Your task to perform on an android device: Clear the shopping cart on walmart.com. Add "lenovo thinkpad" to the cart on walmart.com Image 0: 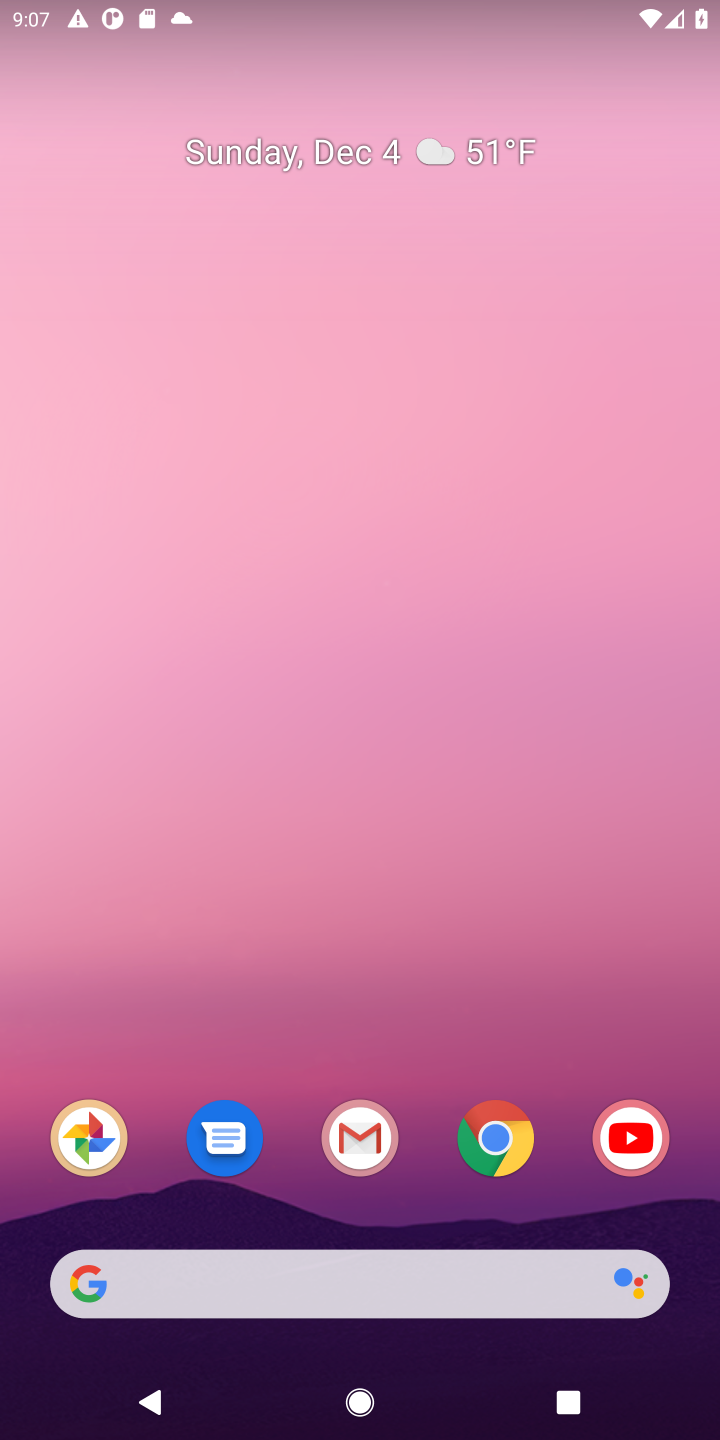
Step 0: click (497, 1131)
Your task to perform on an android device: Clear the shopping cart on walmart.com. Add "lenovo thinkpad" to the cart on walmart.com Image 1: 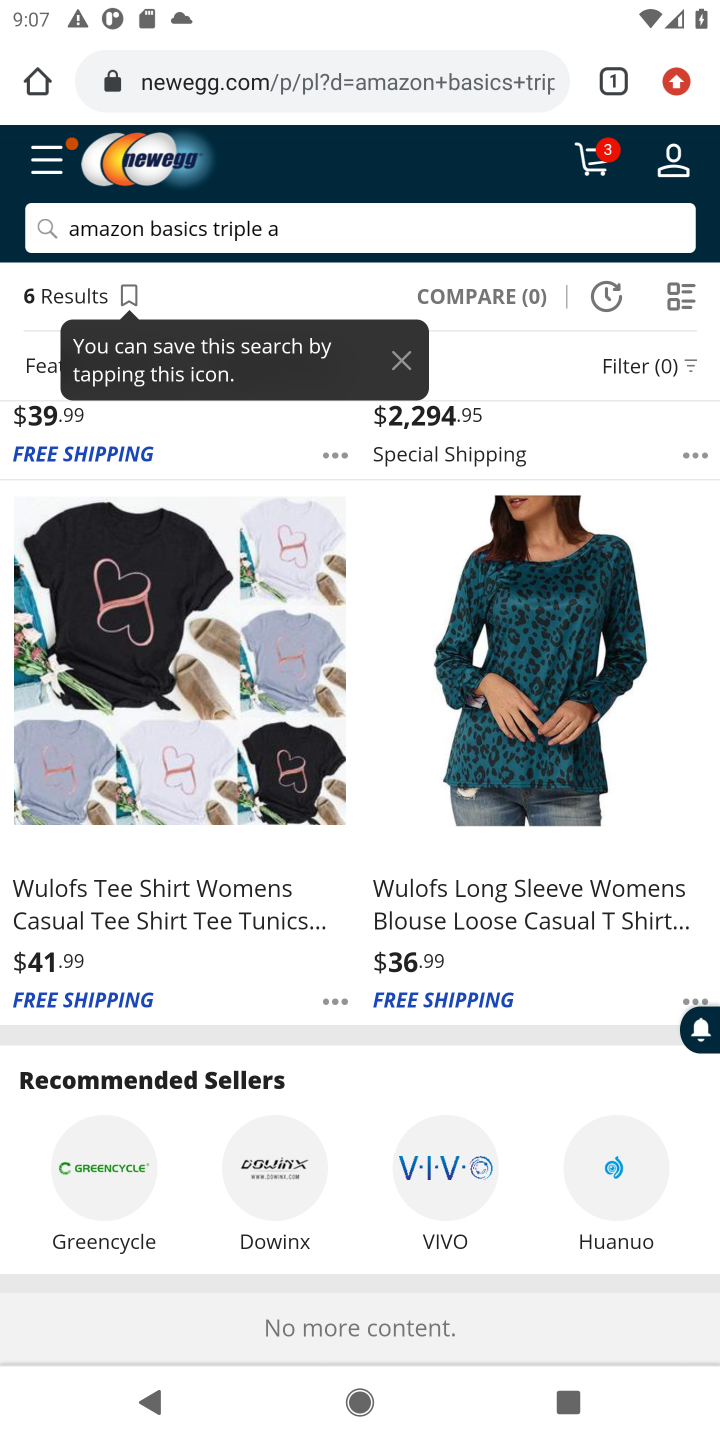
Step 1: click (329, 83)
Your task to perform on an android device: Clear the shopping cart on walmart.com. Add "lenovo thinkpad" to the cart on walmart.com Image 2: 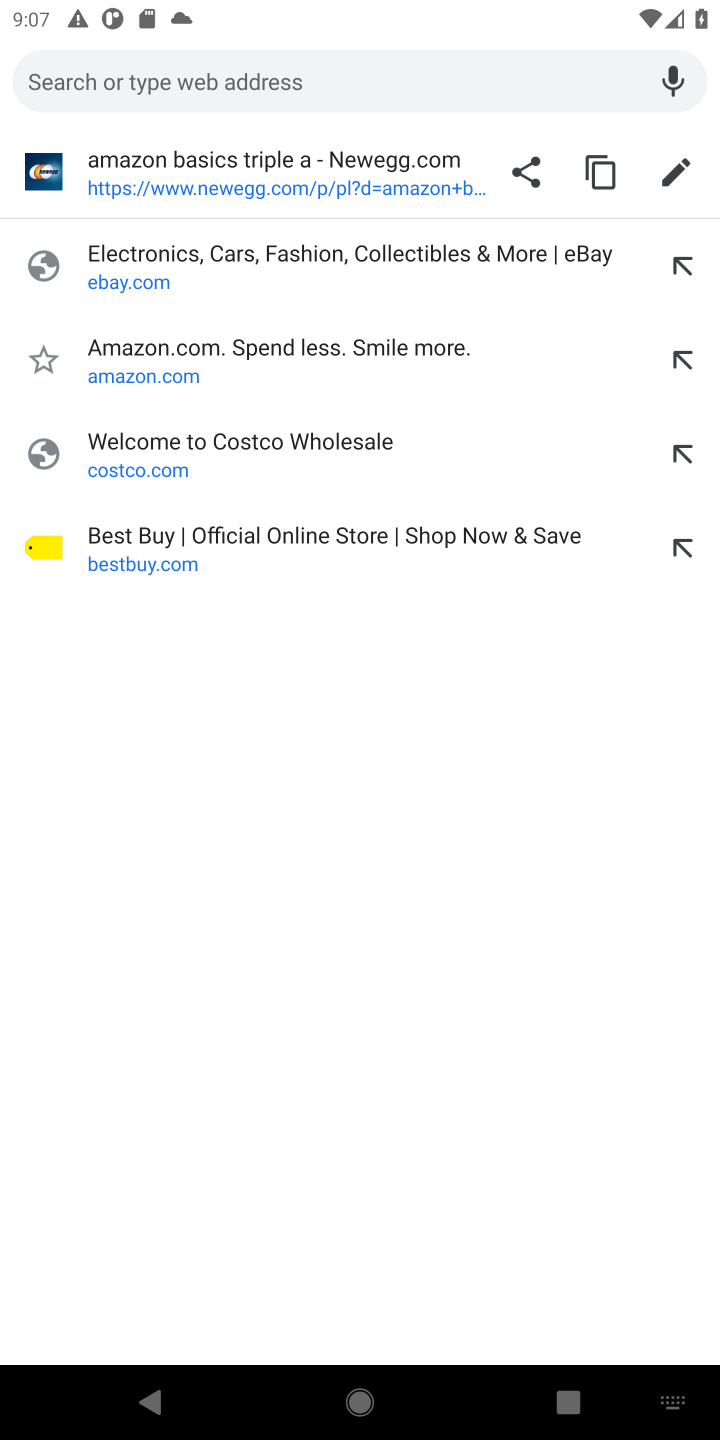
Step 2: type "walmart.com"
Your task to perform on an android device: Clear the shopping cart on walmart.com. Add "lenovo thinkpad" to the cart on walmart.com Image 3: 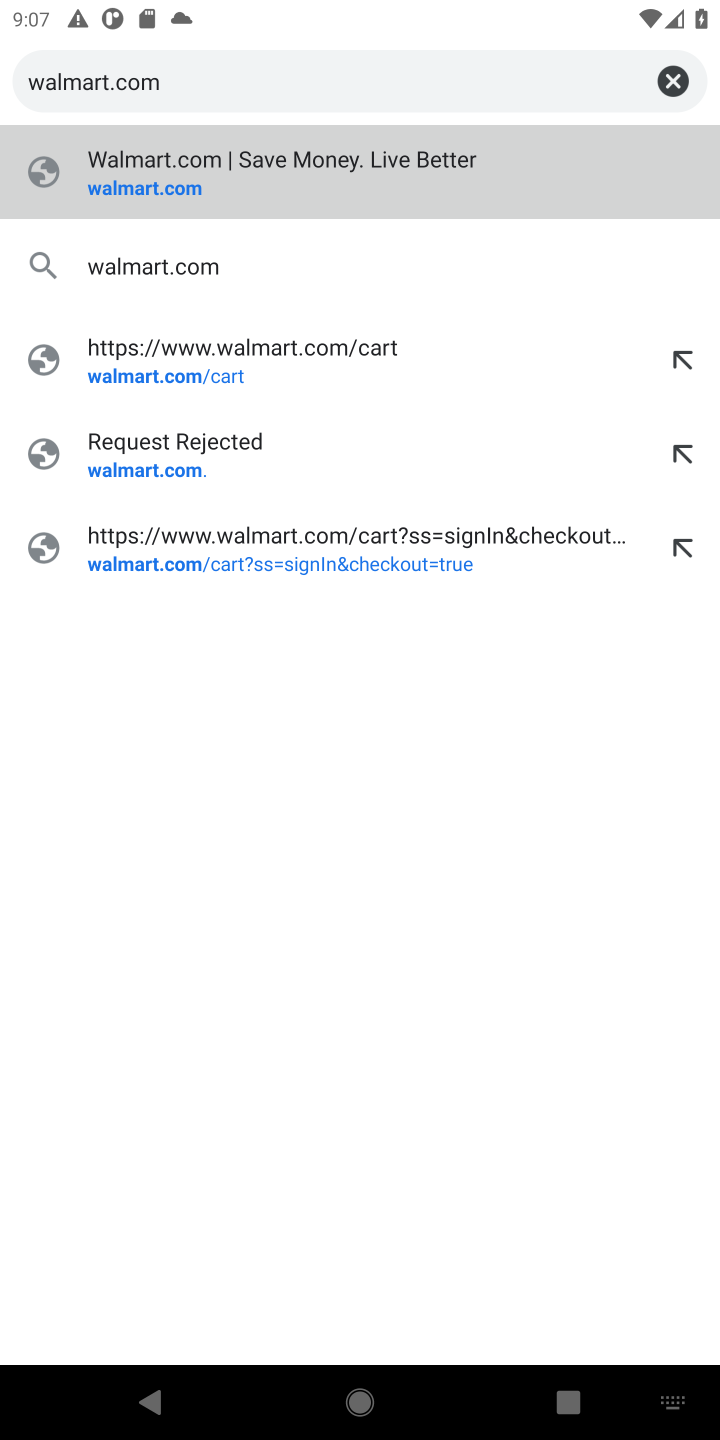
Step 3: press enter
Your task to perform on an android device: Clear the shopping cart on walmart.com. Add "lenovo thinkpad" to the cart on walmart.com Image 4: 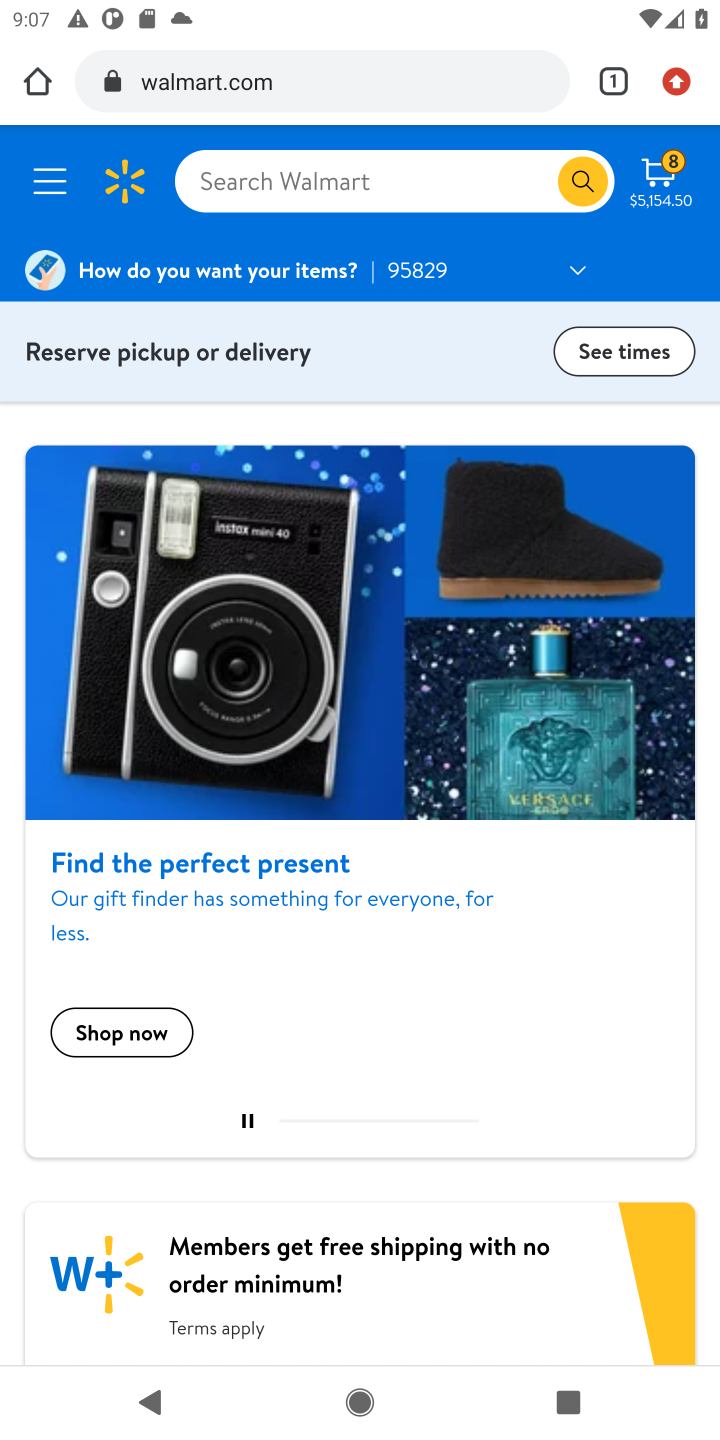
Step 4: click (655, 178)
Your task to perform on an android device: Clear the shopping cart on walmart.com. Add "lenovo thinkpad" to the cart on walmart.com Image 5: 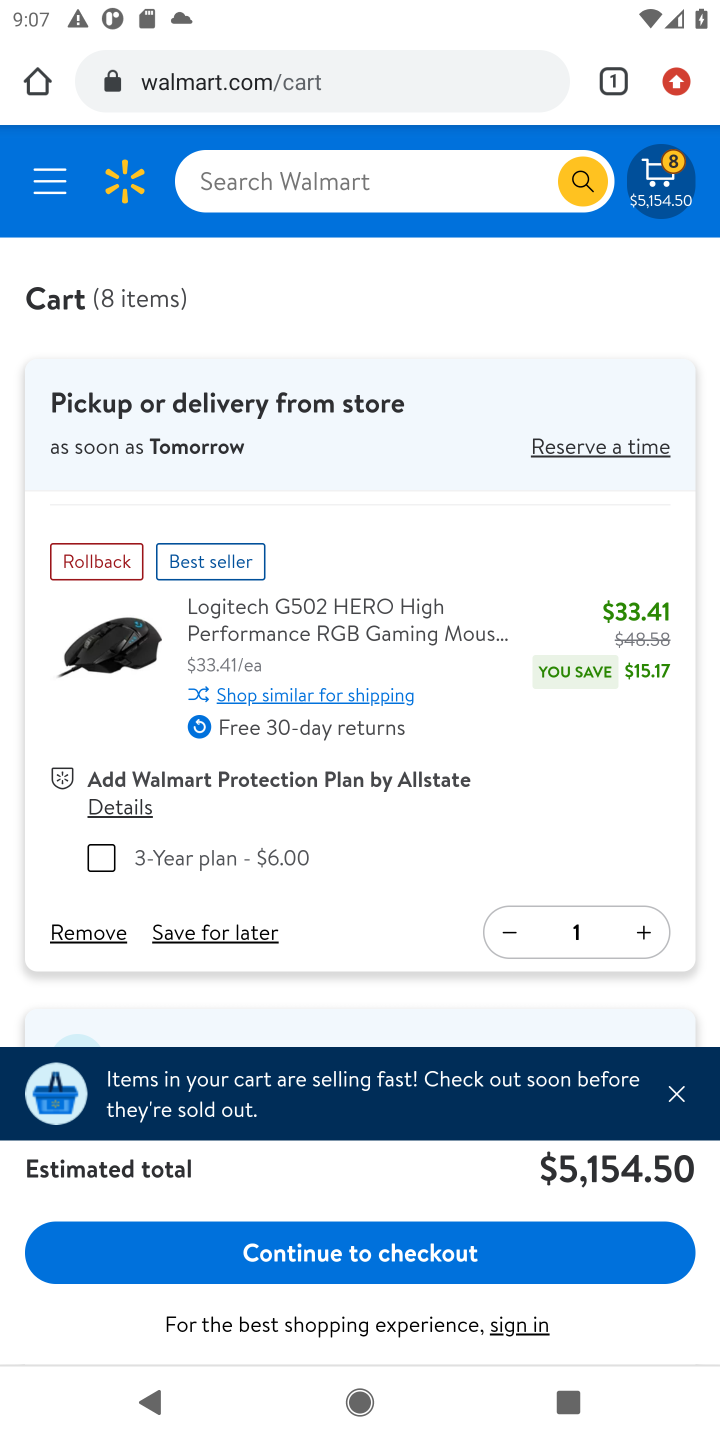
Step 5: drag from (412, 789) to (466, 482)
Your task to perform on an android device: Clear the shopping cart on walmart.com. Add "lenovo thinkpad" to the cart on walmart.com Image 6: 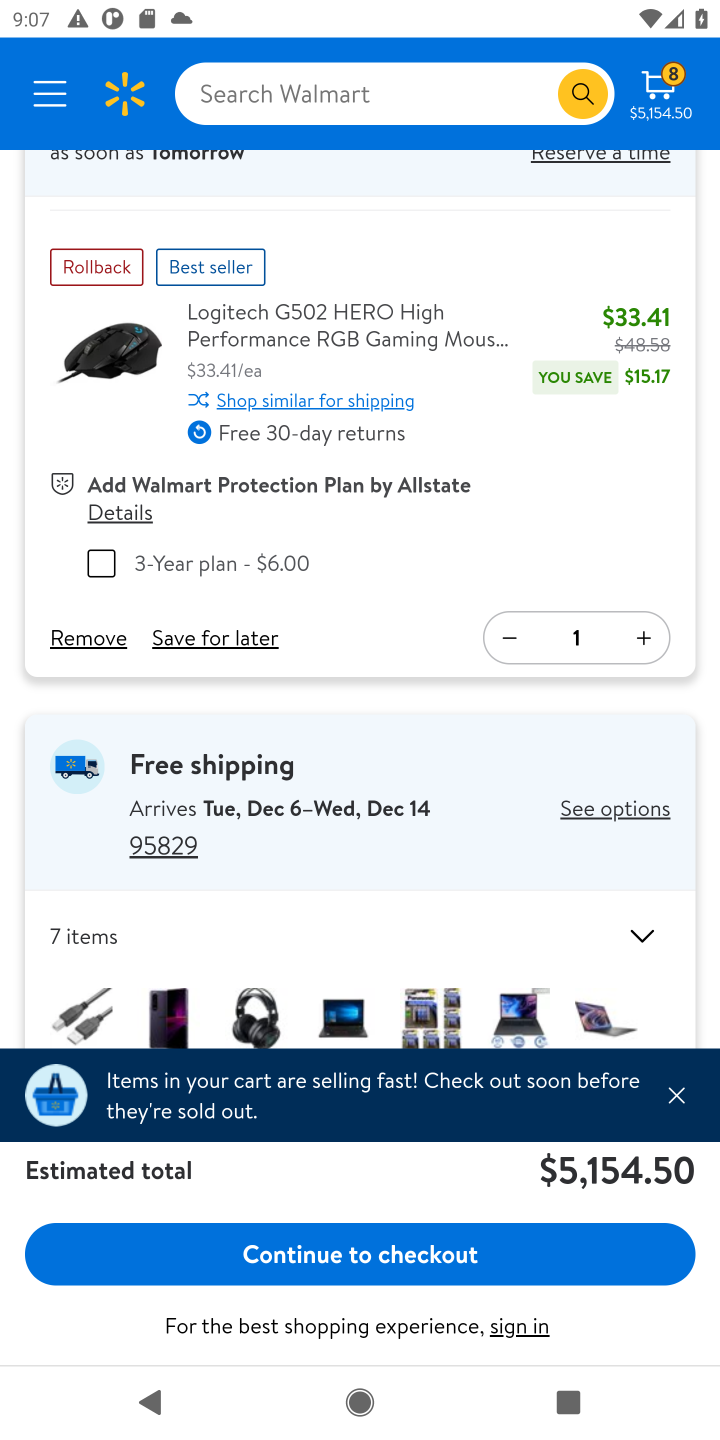
Step 6: click (105, 629)
Your task to perform on an android device: Clear the shopping cart on walmart.com. Add "lenovo thinkpad" to the cart on walmart.com Image 7: 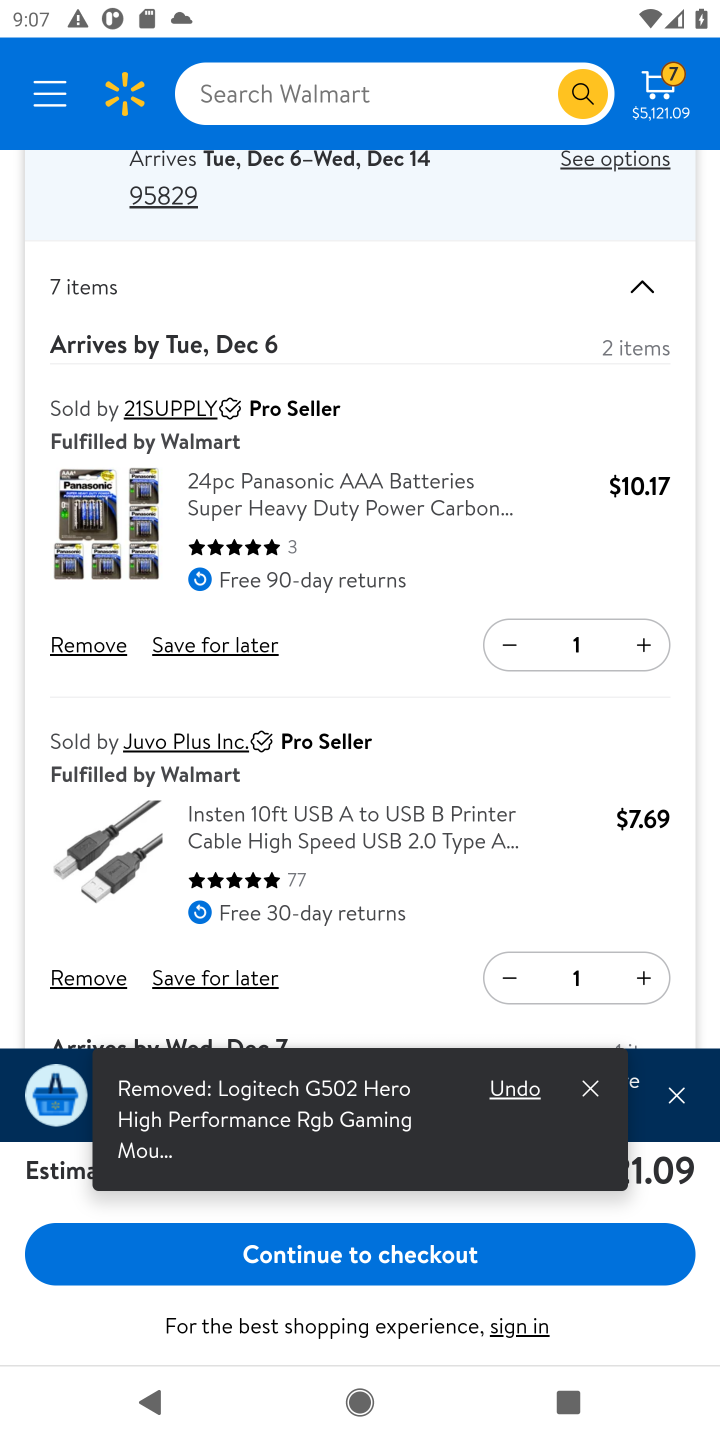
Step 7: click (80, 975)
Your task to perform on an android device: Clear the shopping cart on walmart.com. Add "lenovo thinkpad" to the cart on walmart.com Image 8: 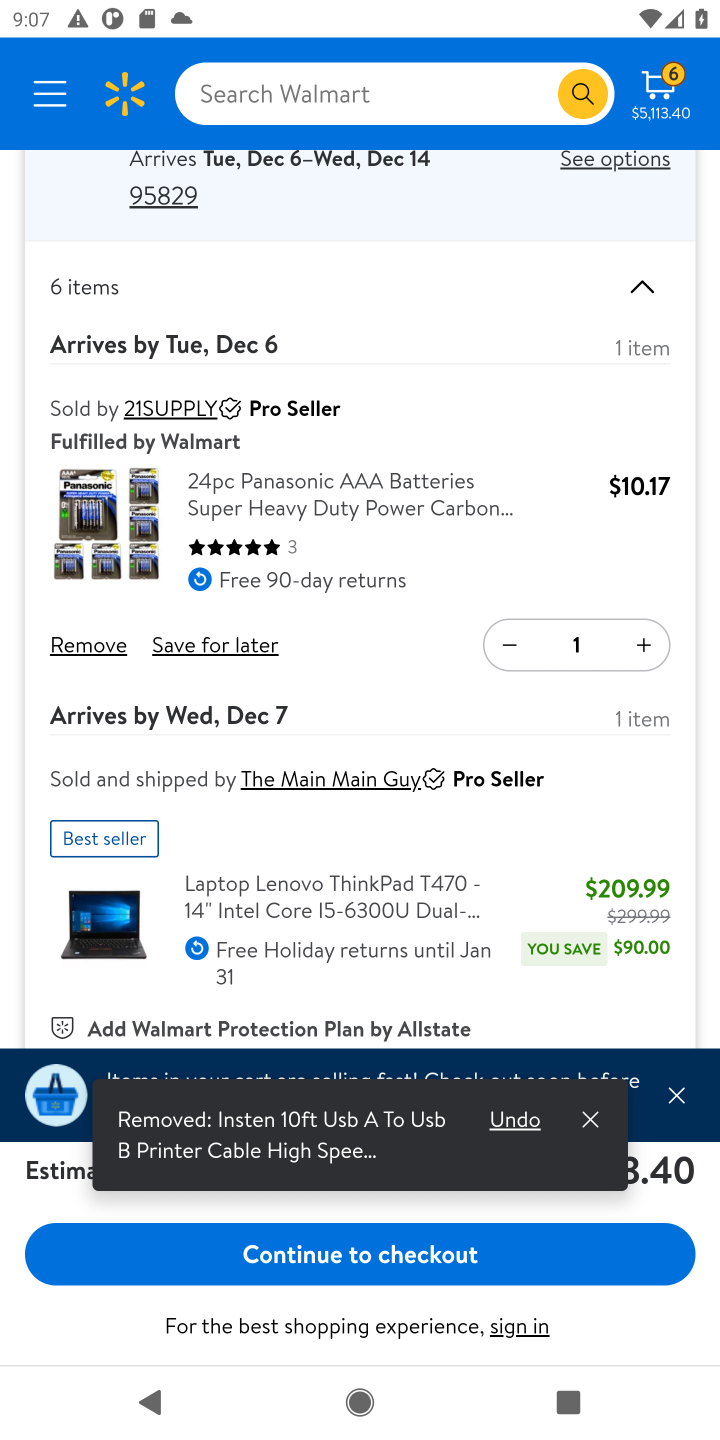
Step 8: click (102, 643)
Your task to perform on an android device: Clear the shopping cart on walmart.com. Add "lenovo thinkpad" to the cart on walmart.com Image 9: 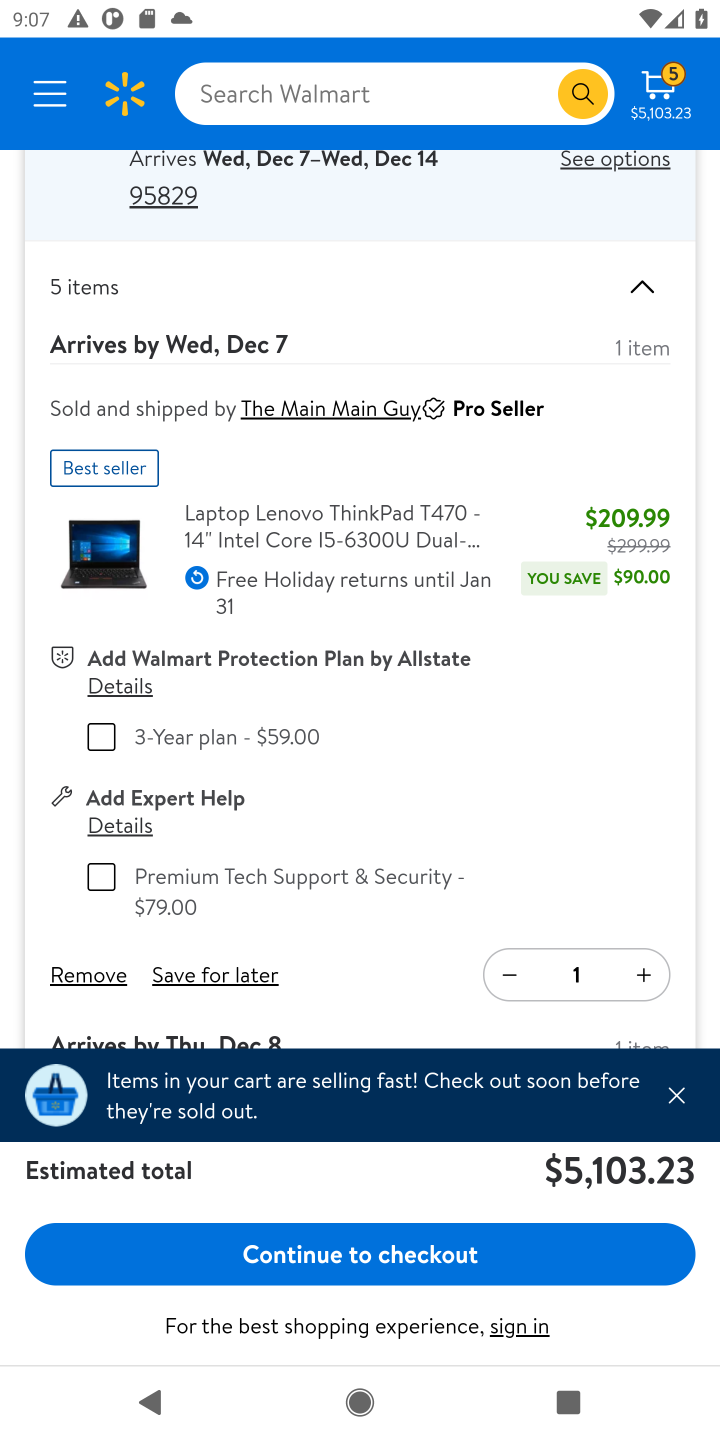
Step 9: drag from (619, 722) to (663, 199)
Your task to perform on an android device: Clear the shopping cart on walmart.com. Add "lenovo thinkpad" to the cart on walmart.com Image 10: 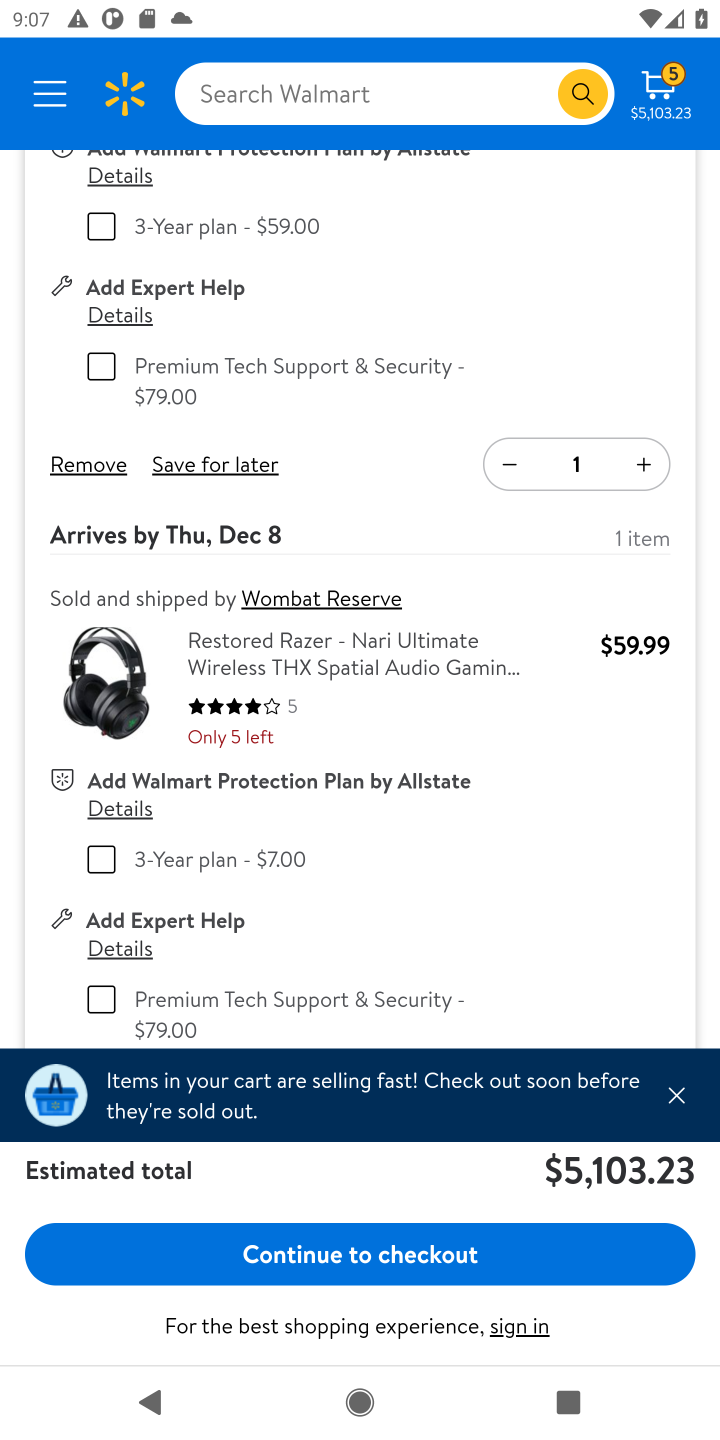
Step 10: click (106, 457)
Your task to perform on an android device: Clear the shopping cart on walmart.com. Add "lenovo thinkpad" to the cart on walmart.com Image 11: 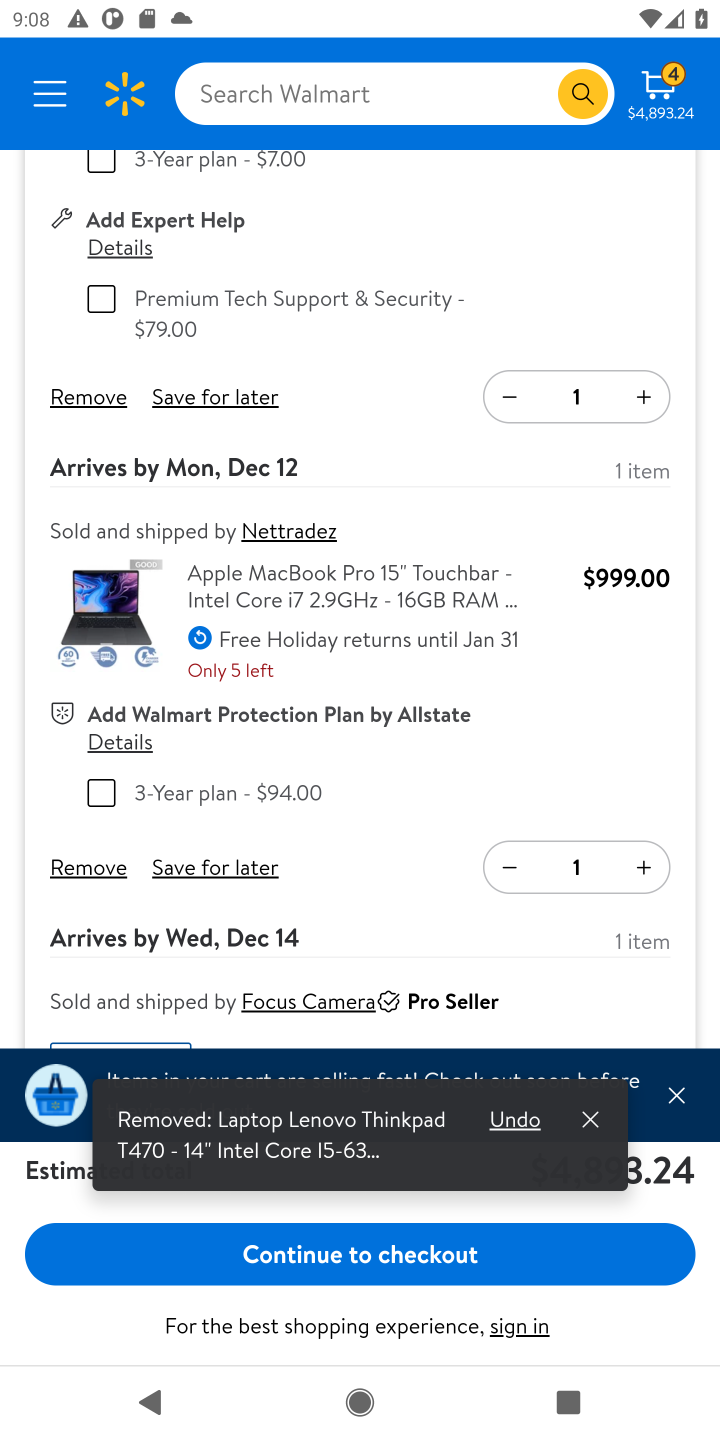
Step 11: click (89, 392)
Your task to perform on an android device: Clear the shopping cart on walmart.com. Add "lenovo thinkpad" to the cart on walmart.com Image 12: 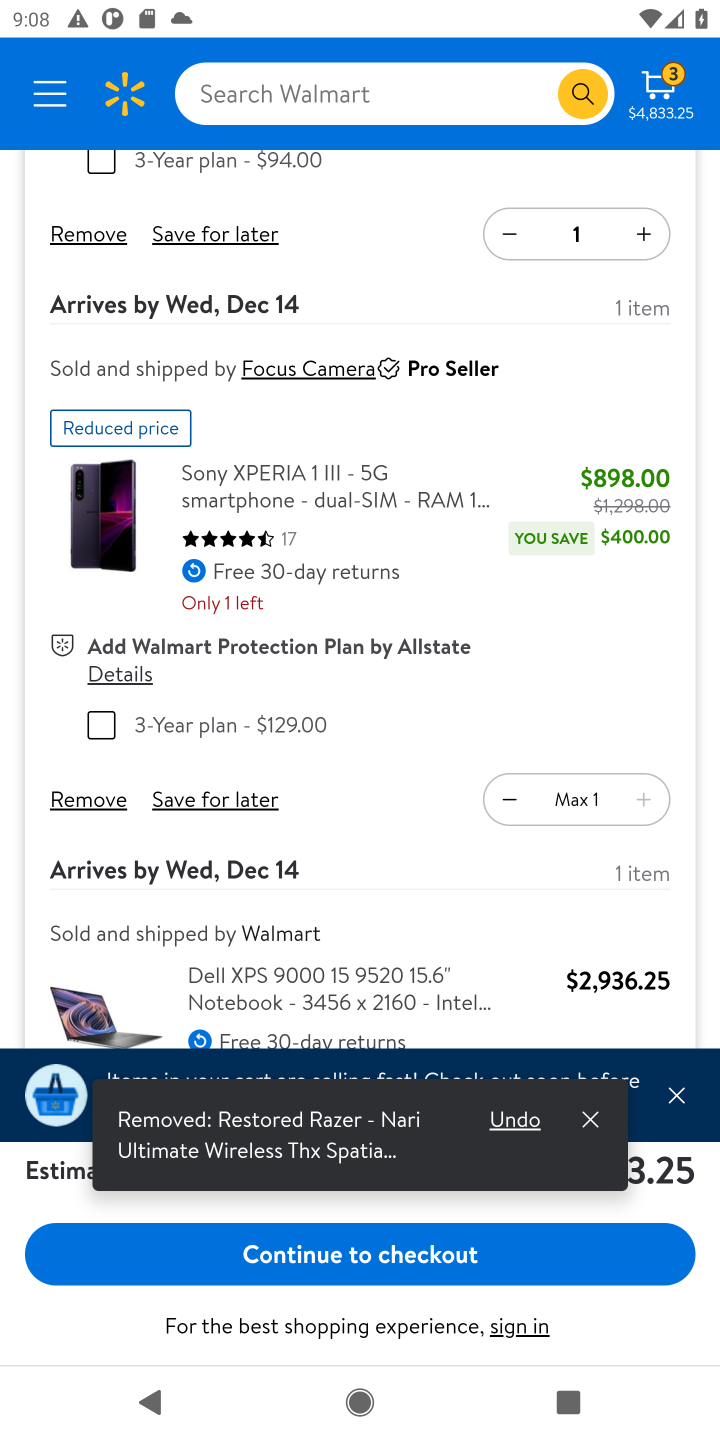
Step 12: click (93, 231)
Your task to perform on an android device: Clear the shopping cart on walmart.com. Add "lenovo thinkpad" to the cart on walmart.com Image 13: 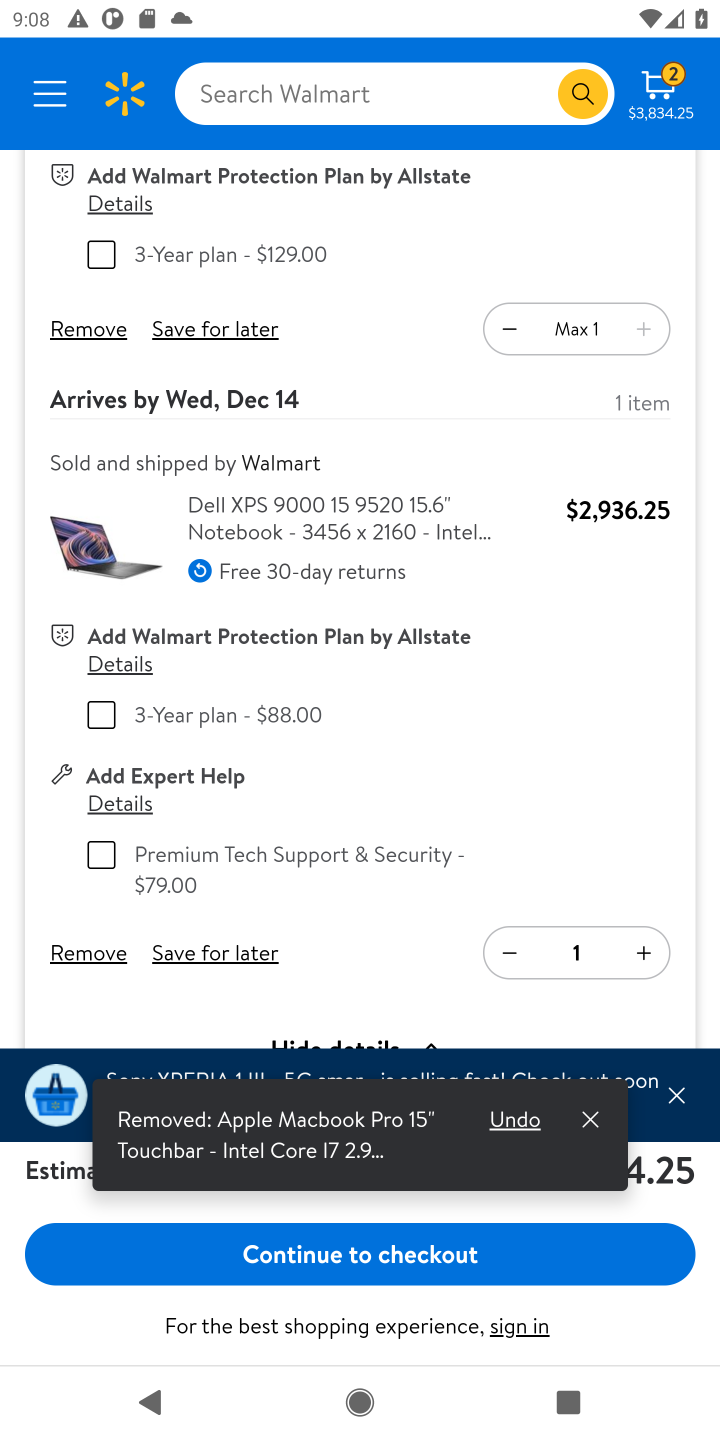
Step 13: click (91, 329)
Your task to perform on an android device: Clear the shopping cart on walmart.com. Add "lenovo thinkpad" to the cart on walmart.com Image 14: 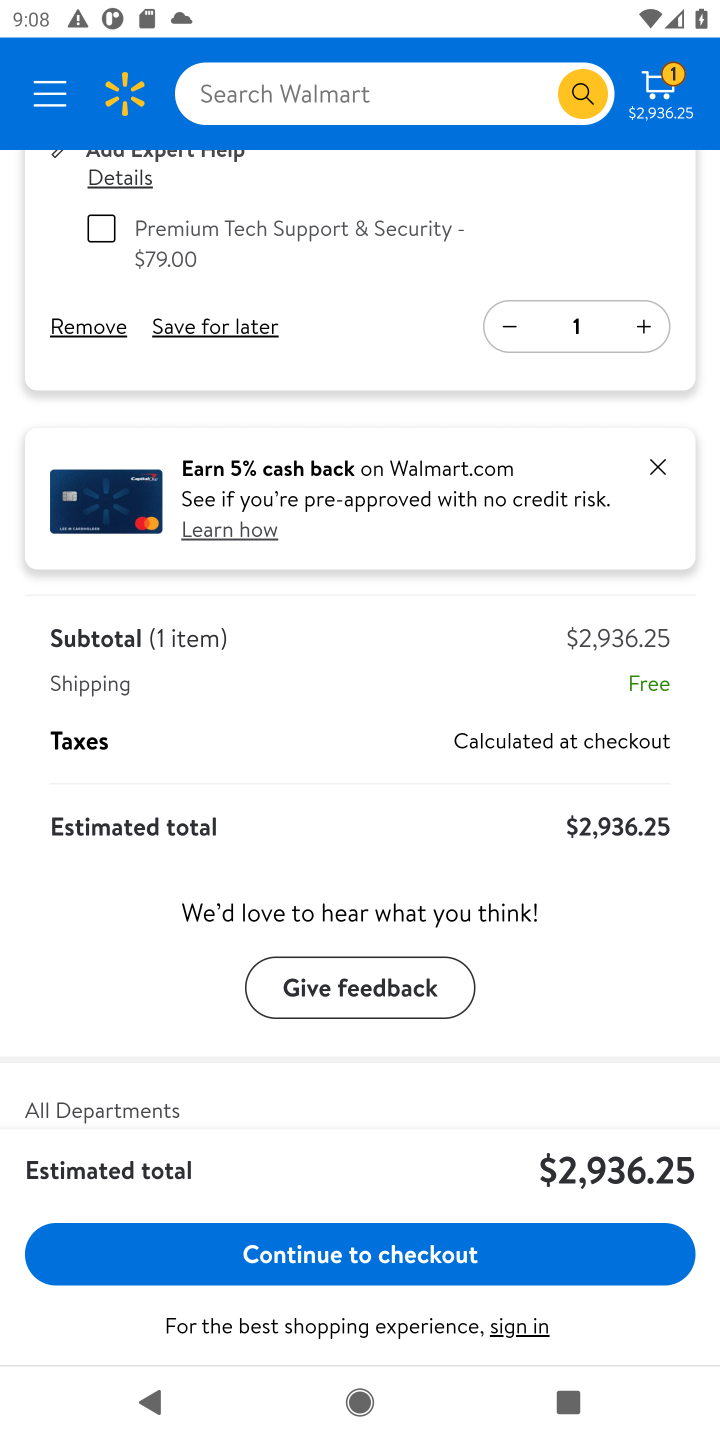
Step 14: click (68, 325)
Your task to perform on an android device: Clear the shopping cart on walmart.com. Add "lenovo thinkpad" to the cart on walmart.com Image 15: 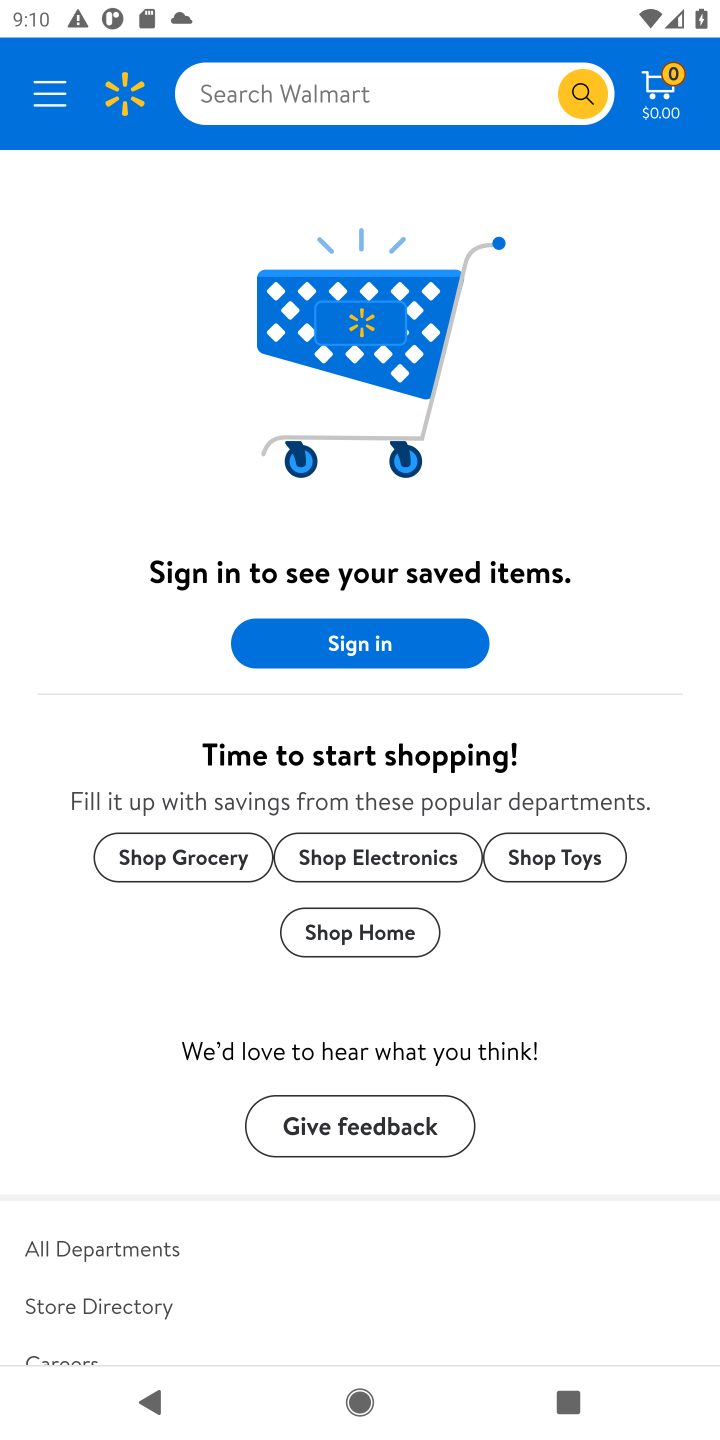
Step 15: click (380, 87)
Your task to perform on an android device: Clear the shopping cart on walmart.com. Add "lenovo thinkpad" to the cart on walmart.com Image 16: 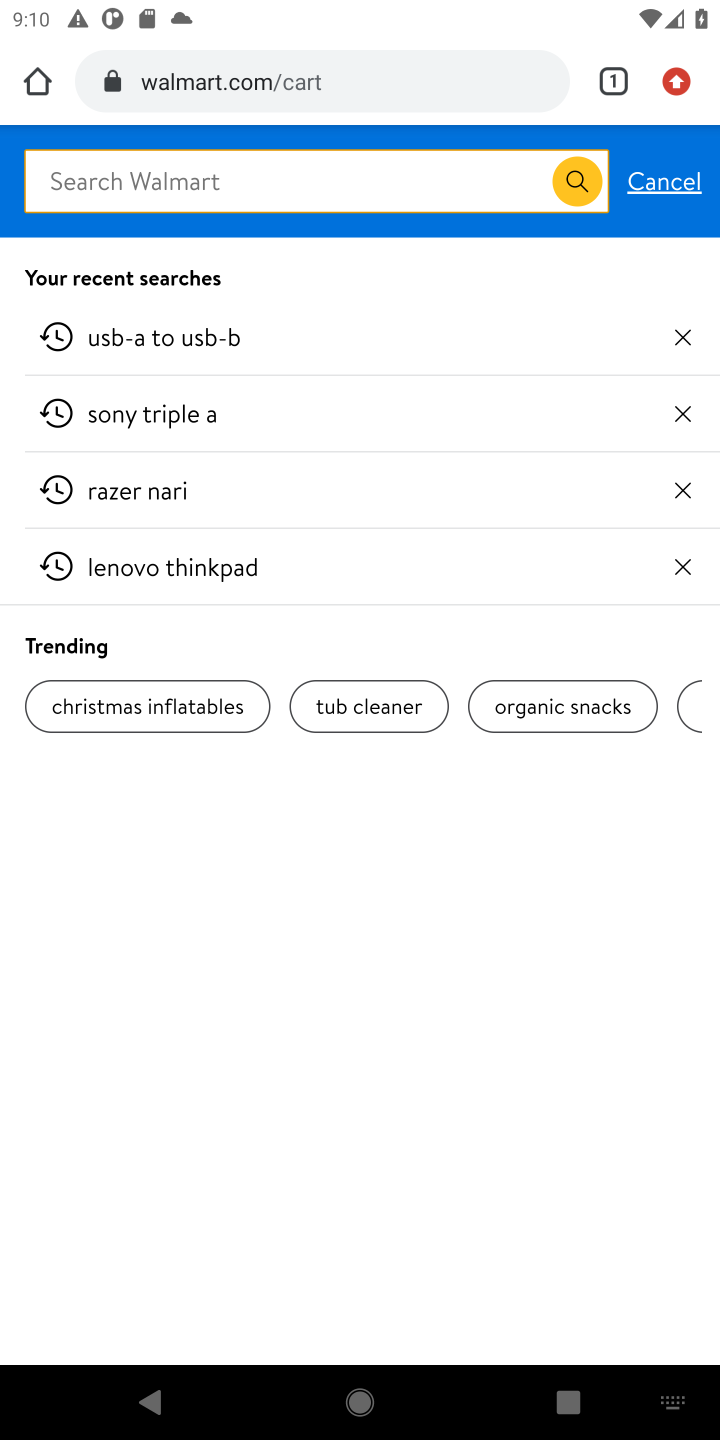
Step 16: type "lenovo thinkpad"
Your task to perform on an android device: Clear the shopping cart on walmart.com. Add "lenovo thinkpad" to the cart on walmart.com Image 17: 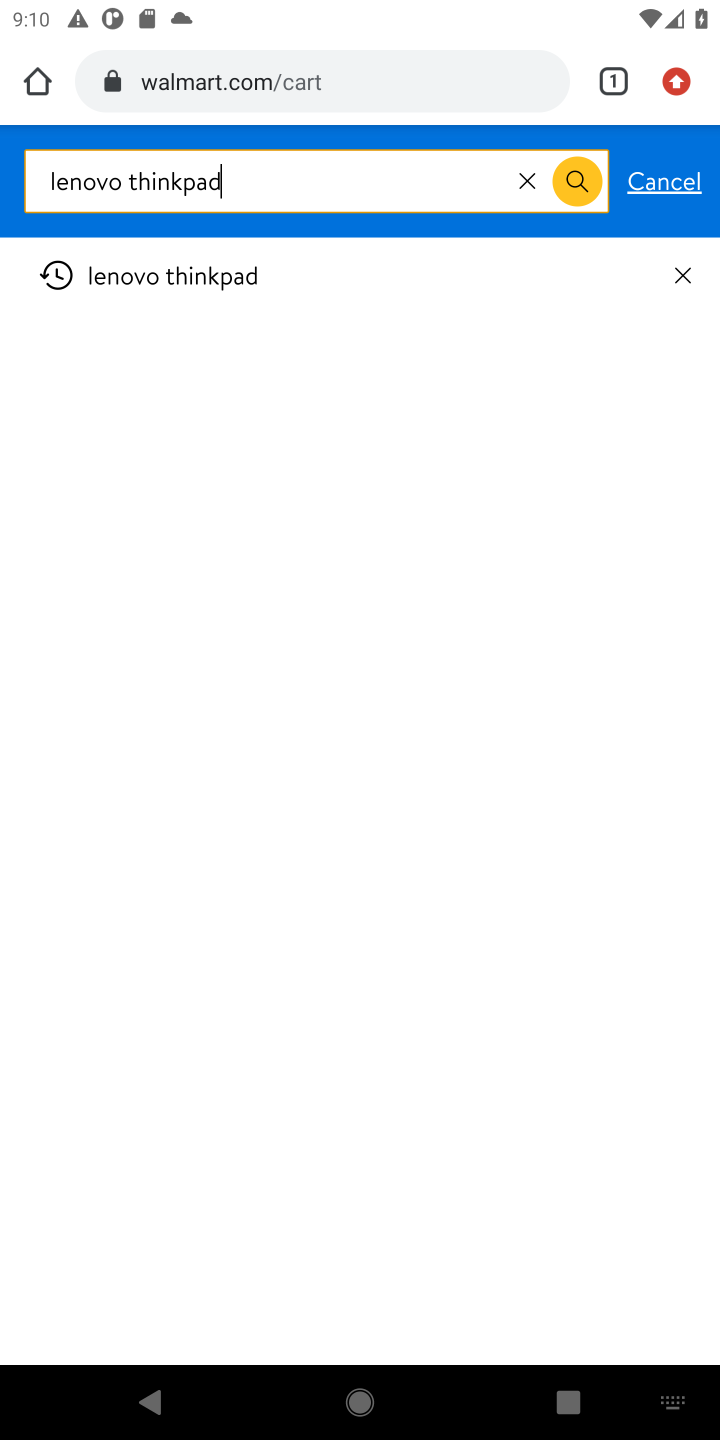
Step 17: press enter
Your task to perform on an android device: Clear the shopping cart on walmart.com. Add "lenovo thinkpad" to the cart on walmart.com Image 18: 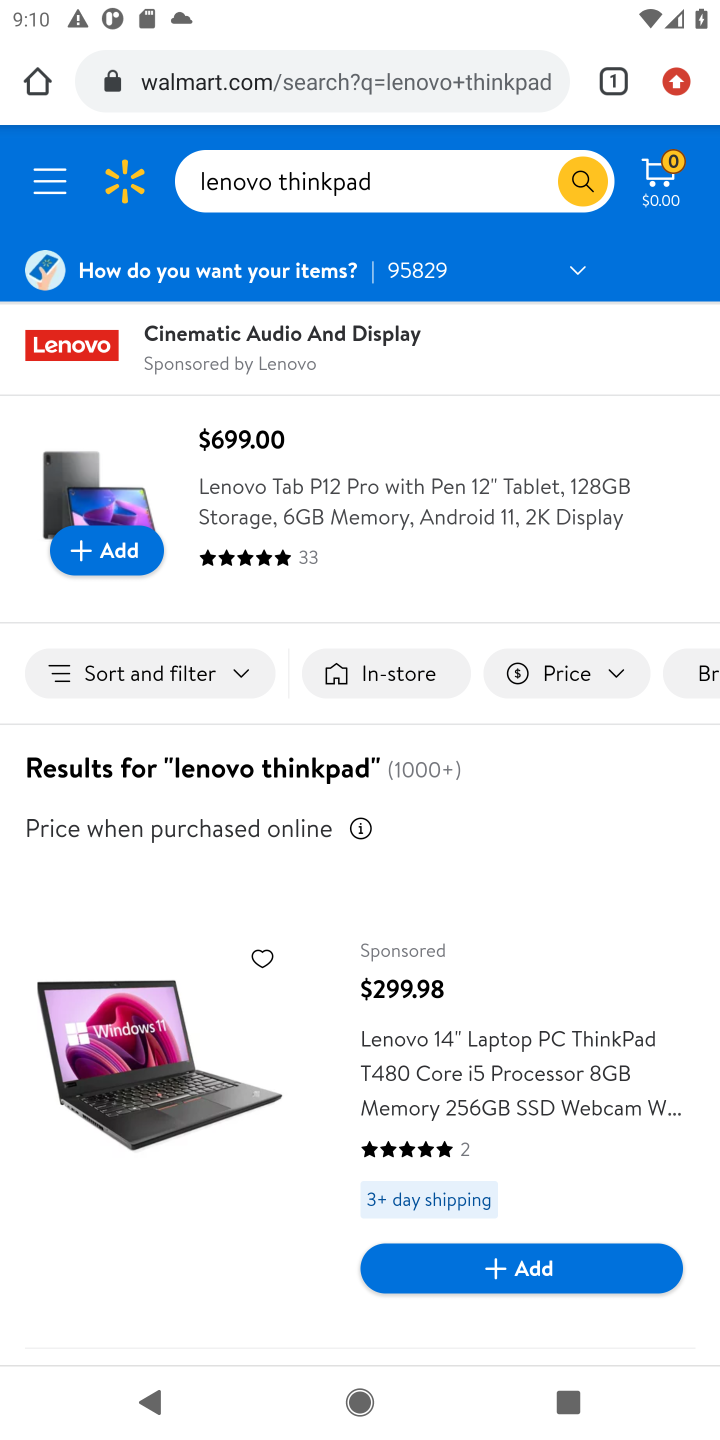
Step 18: drag from (612, 1090) to (525, 416)
Your task to perform on an android device: Clear the shopping cart on walmart.com. Add "lenovo thinkpad" to the cart on walmart.com Image 19: 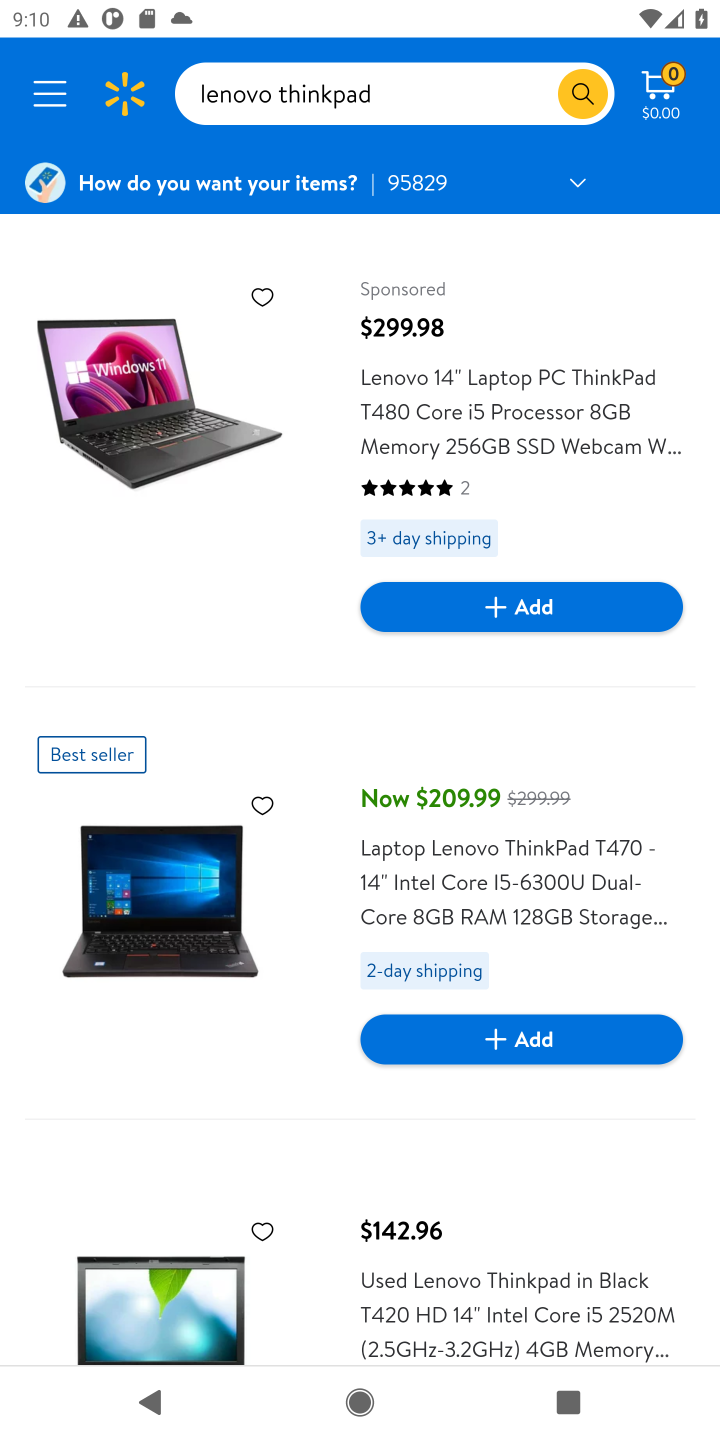
Step 19: click (171, 921)
Your task to perform on an android device: Clear the shopping cart on walmart.com. Add "lenovo thinkpad" to the cart on walmart.com Image 20: 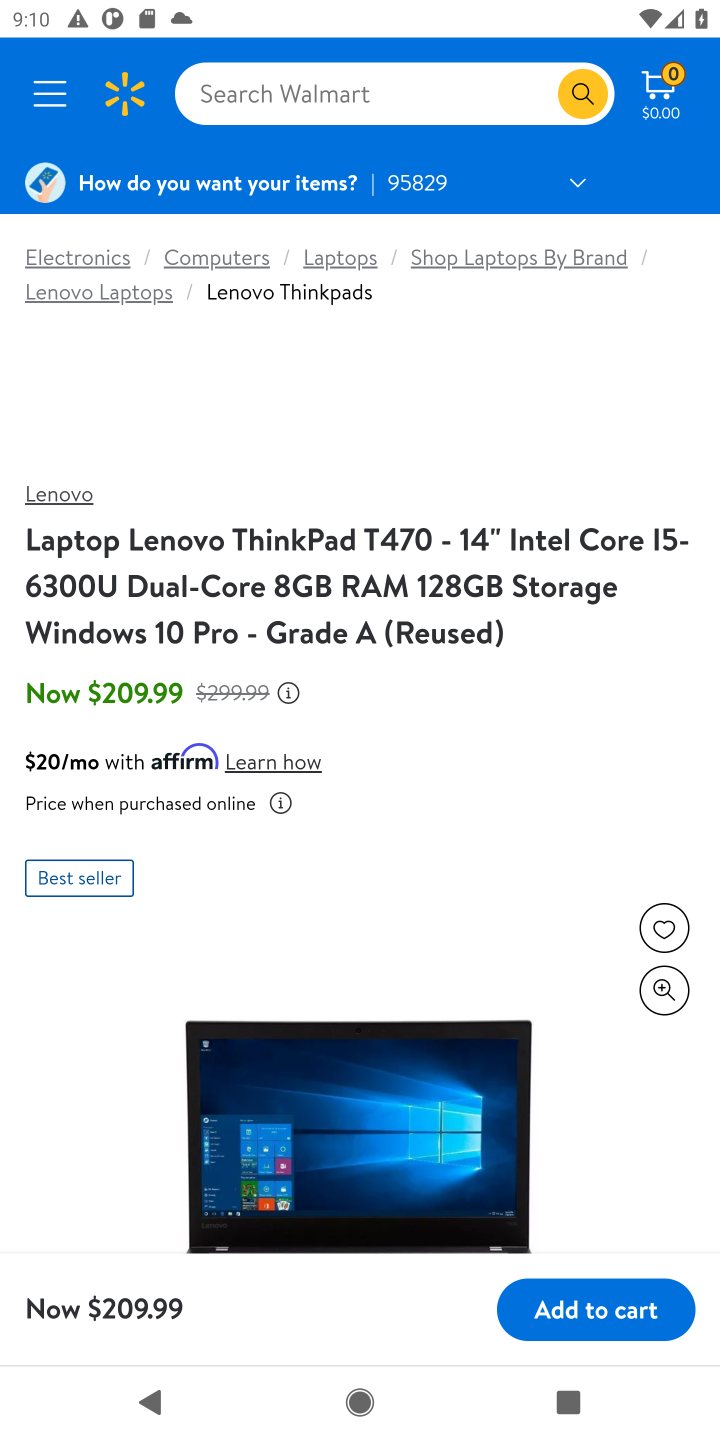
Step 20: click (575, 1308)
Your task to perform on an android device: Clear the shopping cart on walmart.com. Add "lenovo thinkpad" to the cart on walmart.com Image 21: 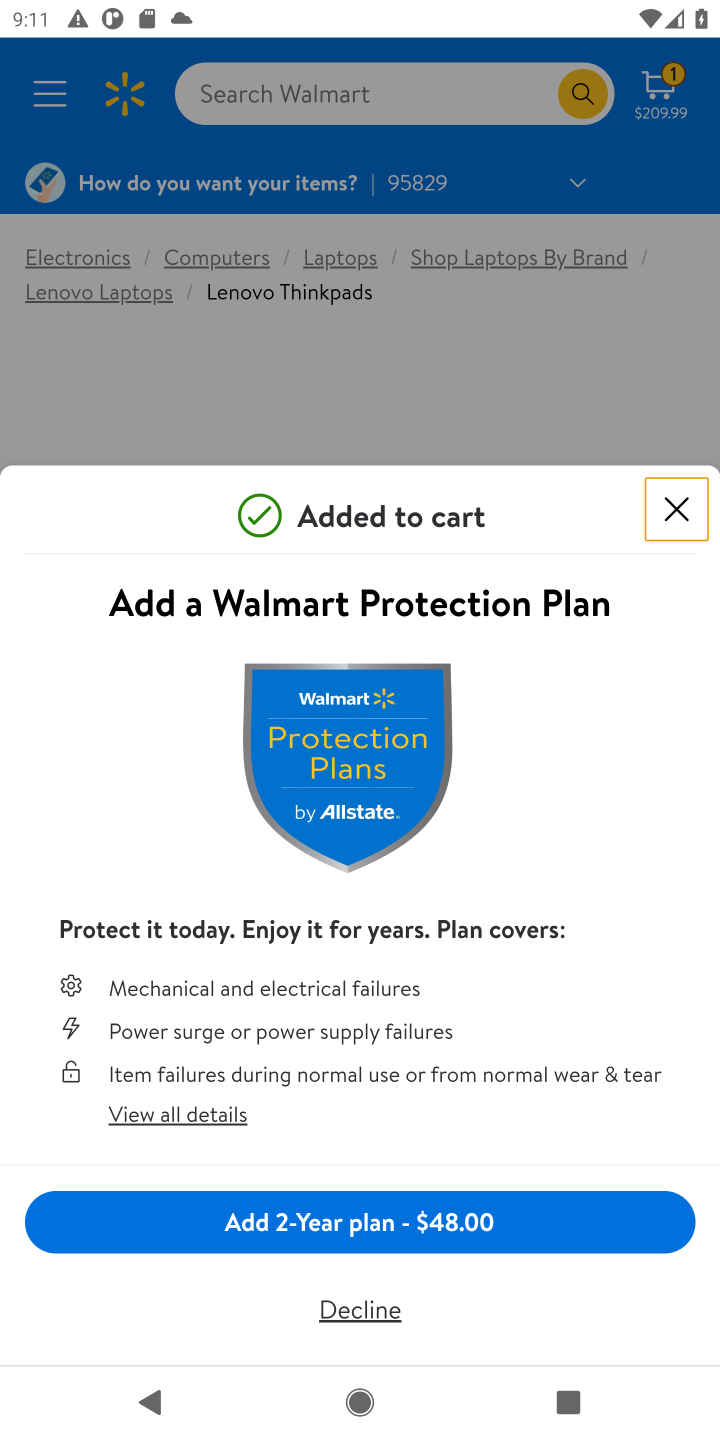
Step 21: click (677, 514)
Your task to perform on an android device: Clear the shopping cart on walmart.com. Add "lenovo thinkpad" to the cart on walmart.com Image 22: 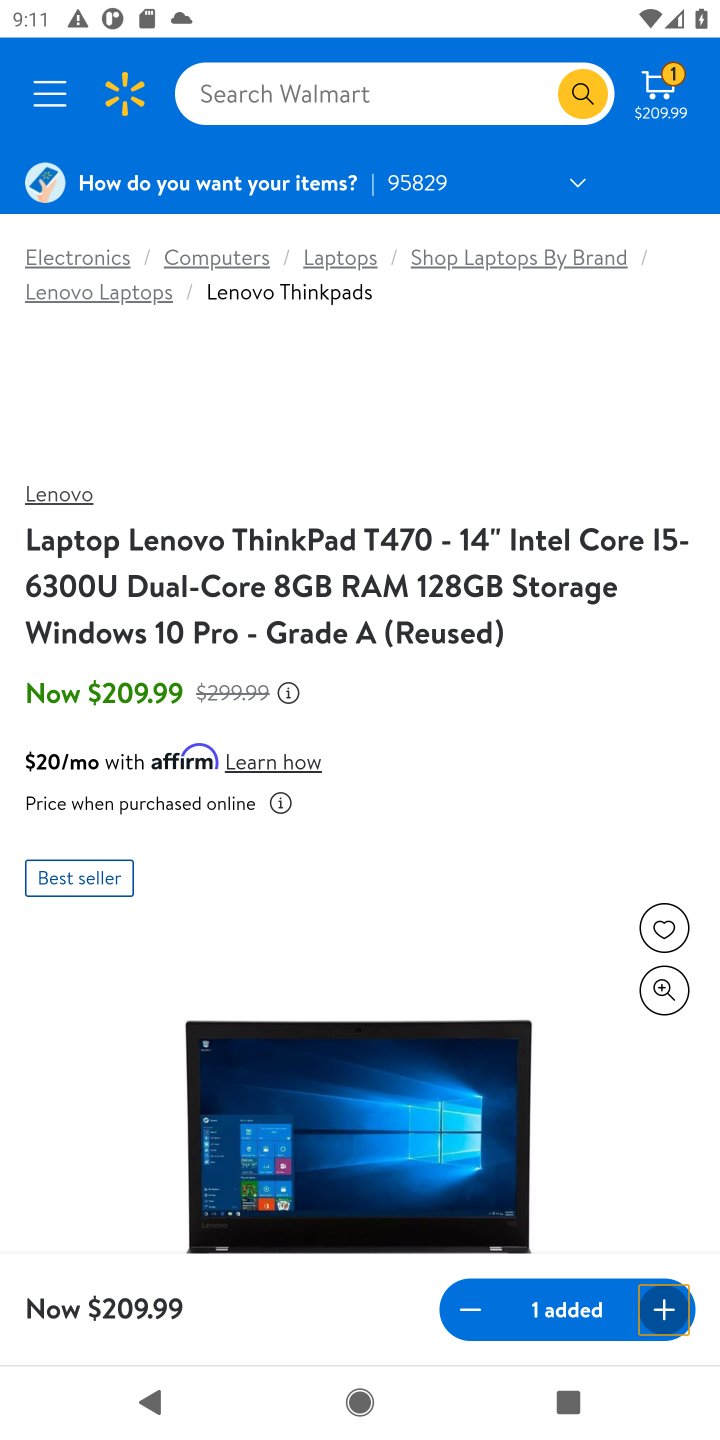
Step 22: task complete